Your task to perform on an android device: Do I have any events tomorrow? Image 0: 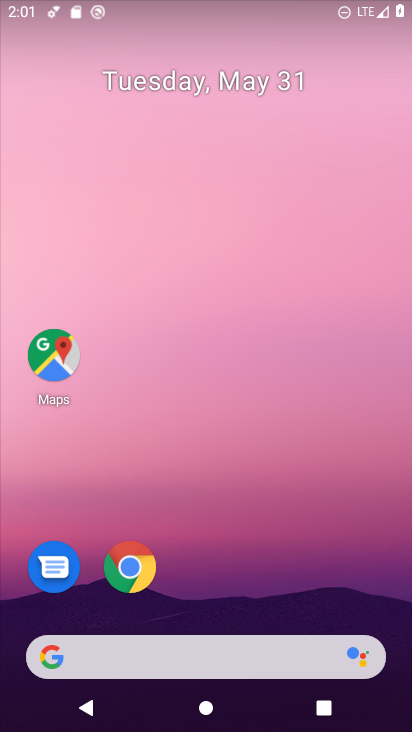
Step 0: drag from (261, 607) to (237, 86)
Your task to perform on an android device: Do I have any events tomorrow? Image 1: 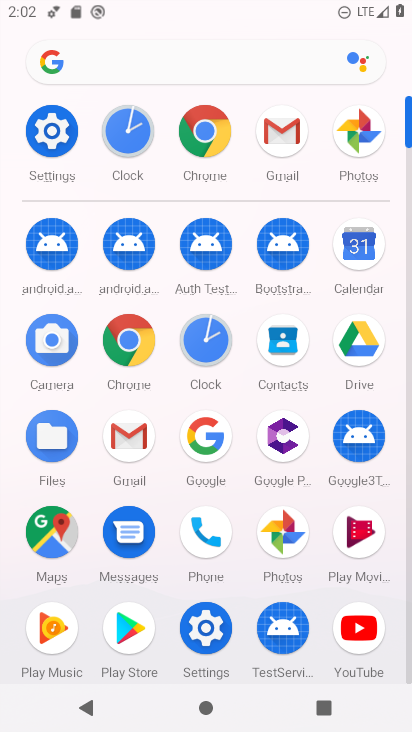
Step 1: click (354, 255)
Your task to perform on an android device: Do I have any events tomorrow? Image 2: 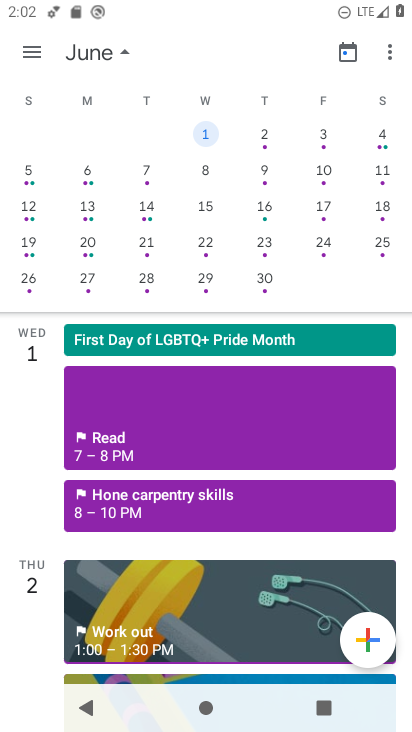
Step 2: click (212, 136)
Your task to perform on an android device: Do I have any events tomorrow? Image 3: 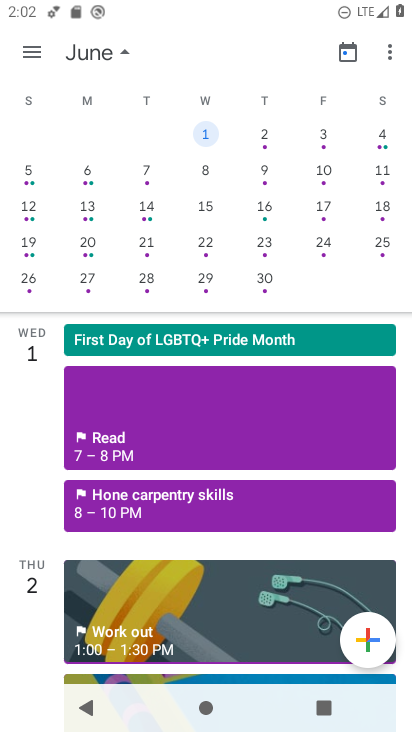
Step 3: task complete